Your task to perform on an android device: Open the map Image 0: 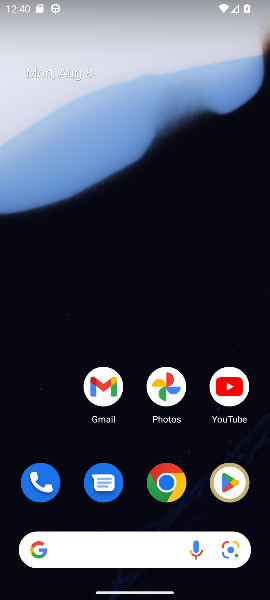
Step 0: drag from (135, 540) to (195, 1)
Your task to perform on an android device: Open the map Image 1: 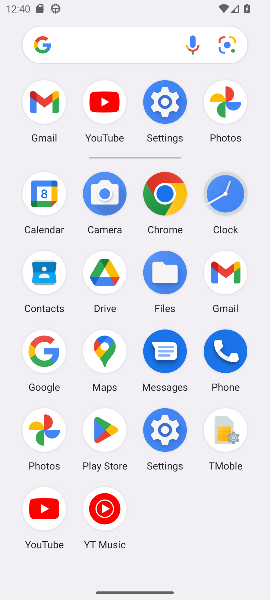
Step 1: click (103, 354)
Your task to perform on an android device: Open the map Image 2: 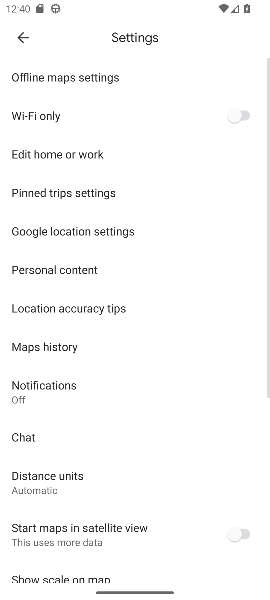
Step 2: task complete